Your task to perform on an android device: Turn off the flashlight Image 0: 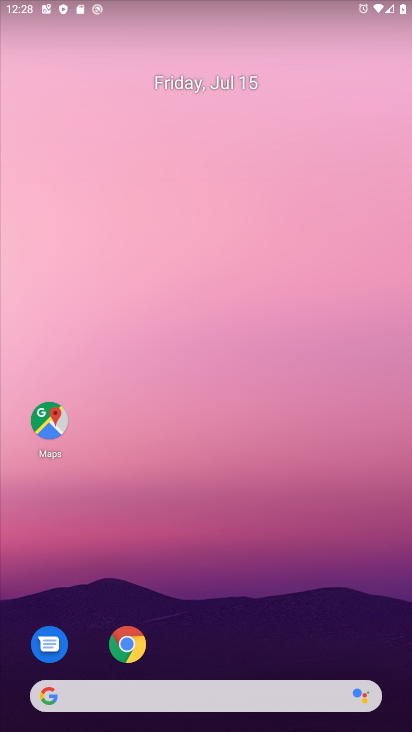
Step 0: drag from (315, 576) to (142, 8)
Your task to perform on an android device: Turn off the flashlight Image 1: 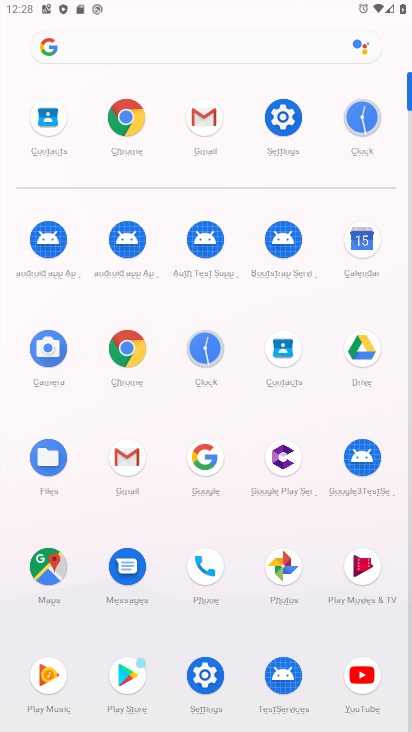
Step 1: click (292, 130)
Your task to perform on an android device: Turn off the flashlight Image 2: 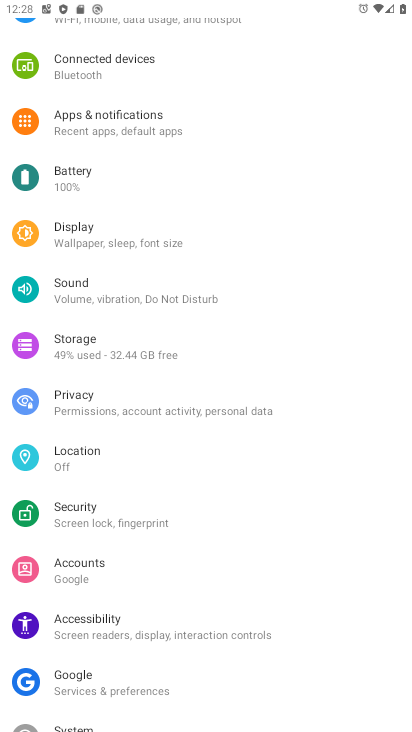
Step 2: task complete